Your task to perform on an android device: open chrome and create a bookmark for the current page Image 0: 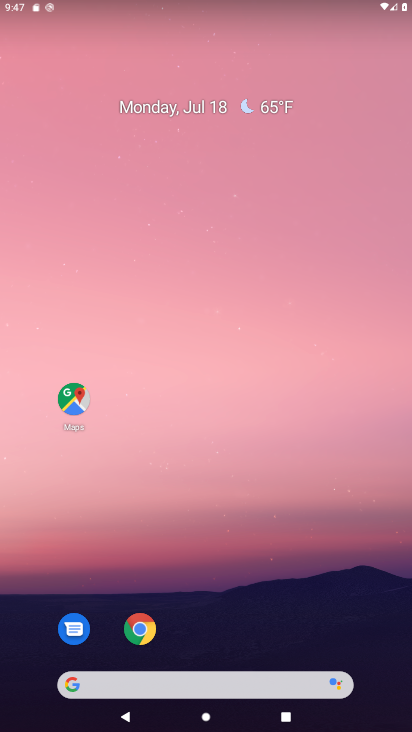
Step 0: click (135, 627)
Your task to perform on an android device: open chrome and create a bookmark for the current page Image 1: 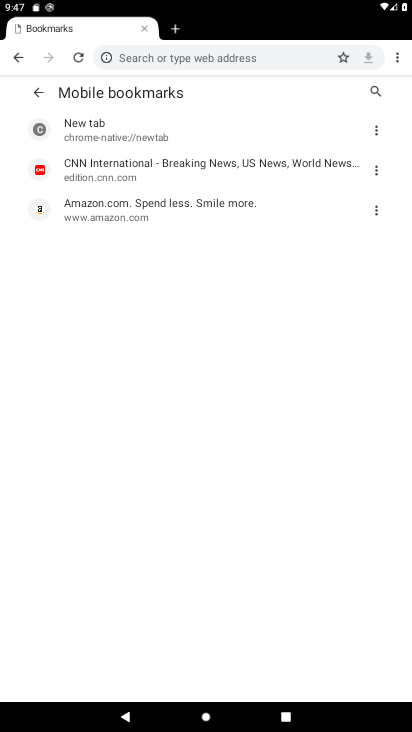
Step 1: click (399, 46)
Your task to perform on an android device: open chrome and create a bookmark for the current page Image 2: 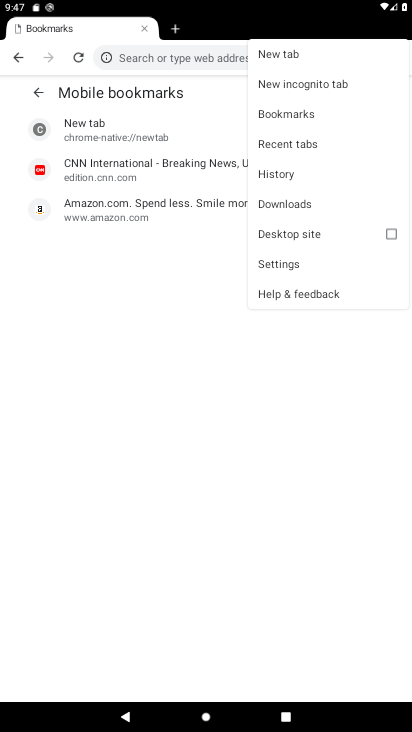
Step 2: click (165, 396)
Your task to perform on an android device: open chrome and create a bookmark for the current page Image 3: 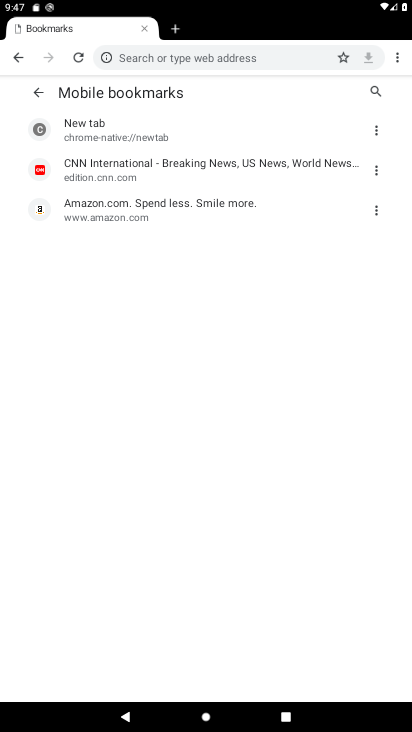
Step 3: click (342, 57)
Your task to perform on an android device: open chrome and create a bookmark for the current page Image 4: 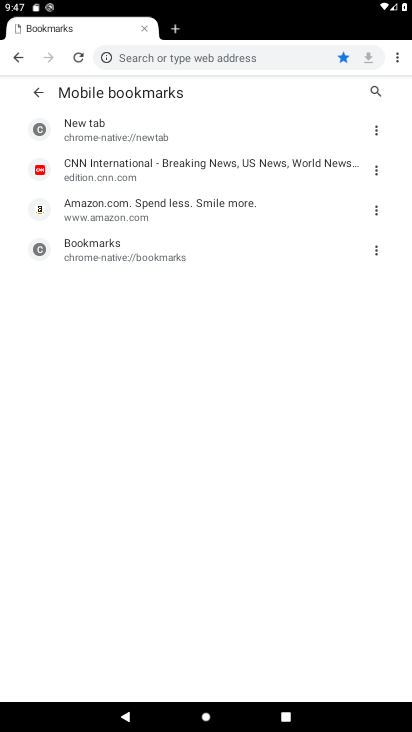
Step 4: task complete